Your task to perform on an android device: change the upload size in google photos Image 0: 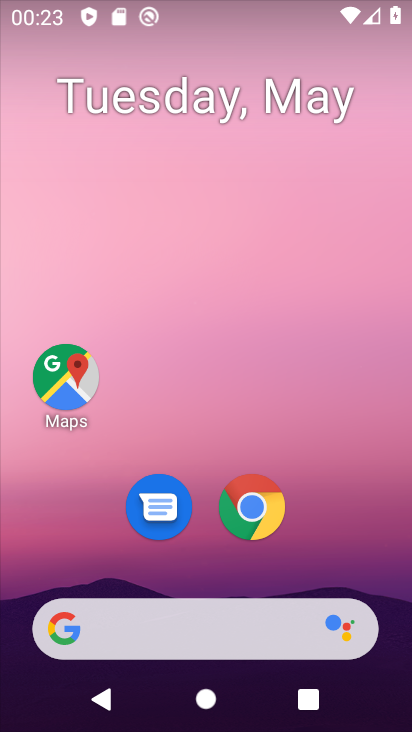
Step 0: drag from (147, 527) to (181, 292)
Your task to perform on an android device: change the upload size in google photos Image 1: 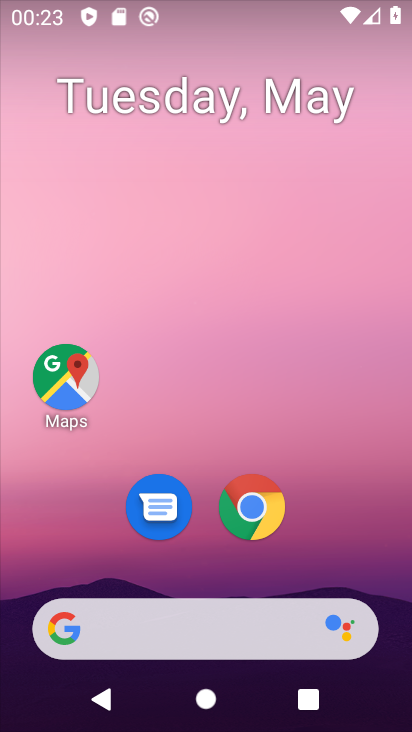
Step 1: drag from (195, 516) to (198, 257)
Your task to perform on an android device: change the upload size in google photos Image 2: 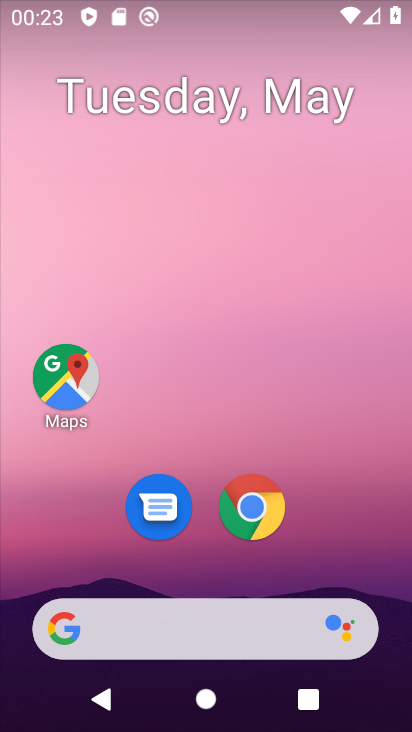
Step 2: drag from (203, 471) to (203, 192)
Your task to perform on an android device: change the upload size in google photos Image 3: 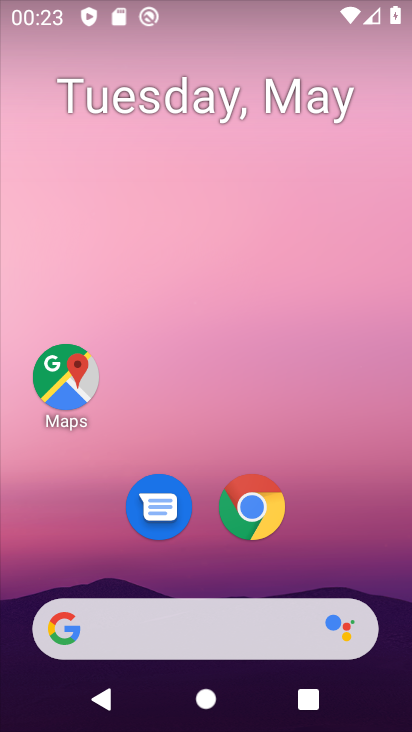
Step 3: drag from (232, 603) to (214, 88)
Your task to perform on an android device: change the upload size in google photos Image 4: 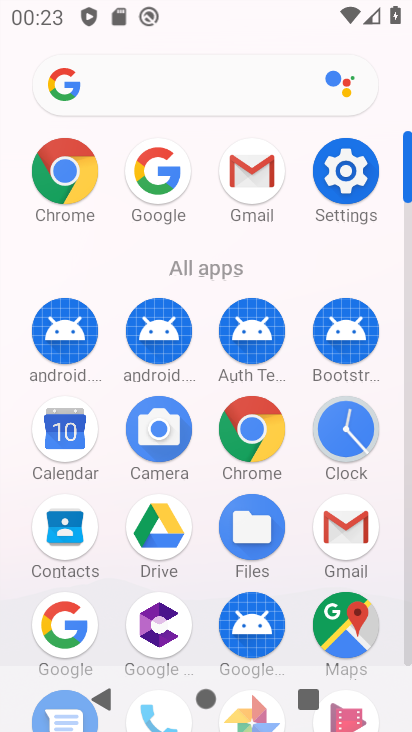
Step 4: drag from (275, 668) to (275, 281)
Your task to perform on an android device: change the upload size in google photos Image 5: 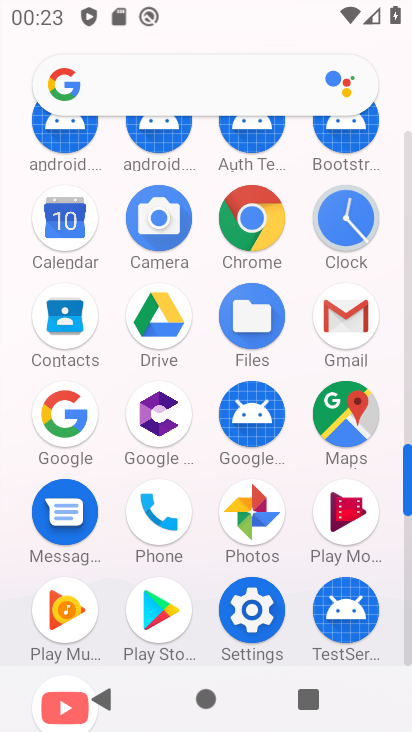
Step 5: click (261, 502)
Your task to perform on an android device: change the upload size in google photos Image 6: 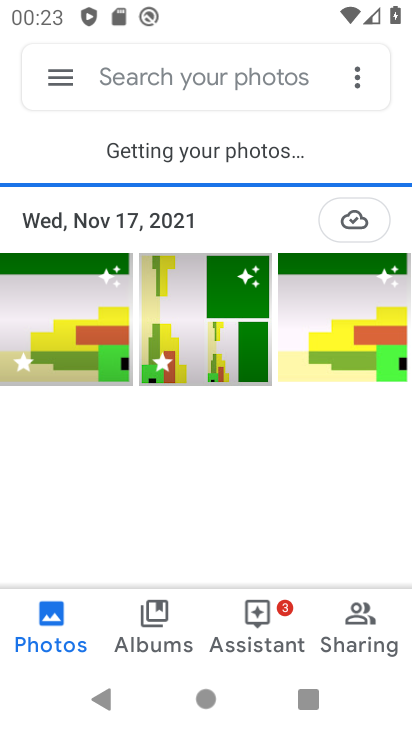
Step 6: click (52, 79)
Your task to perform on an android device: change the upload size in google photos Image 7: 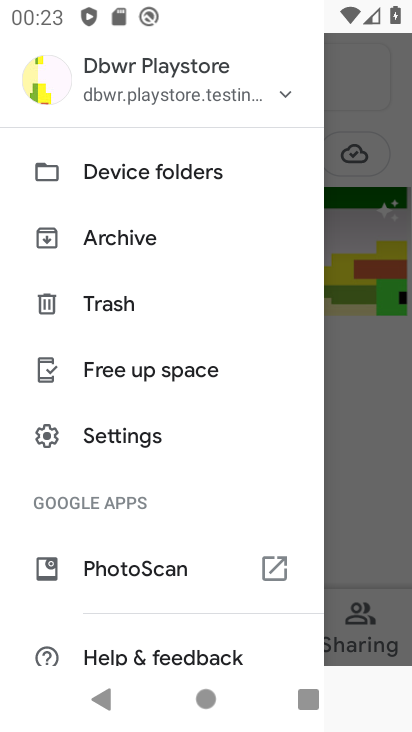
Step 7: click (133, 435)
Your task to perform on an android device: change the upload size in google photos Image 8: 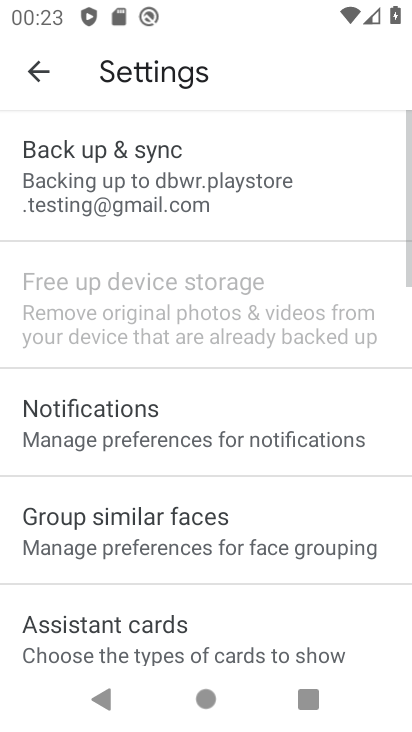
Step 8: click (121, 165)
Your task to perform on an android device: change the upload size in google photos Image 9: 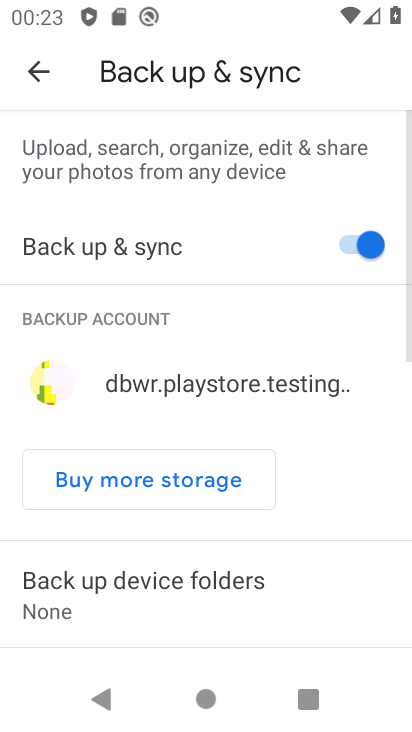
Step 9: drag from (154, 603) to (115, 343)
Your task to perform on an android device: change the upload size in google photos Image 10: 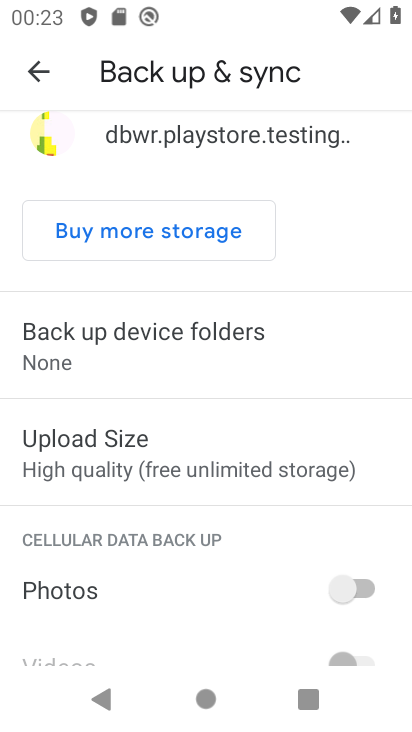
Step 10: click (88, 458)
Your task to perform on an android device: change the upload size in google photos Image 11: 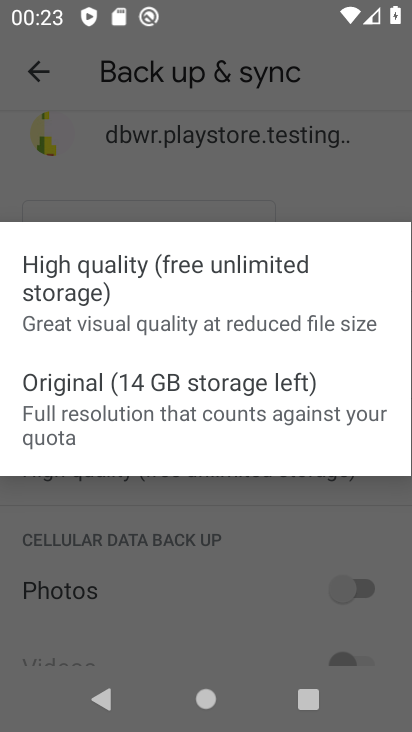
Step 11: click (52, 400)
Your task to perform on an android device: change the upload size in google photos Image 12: 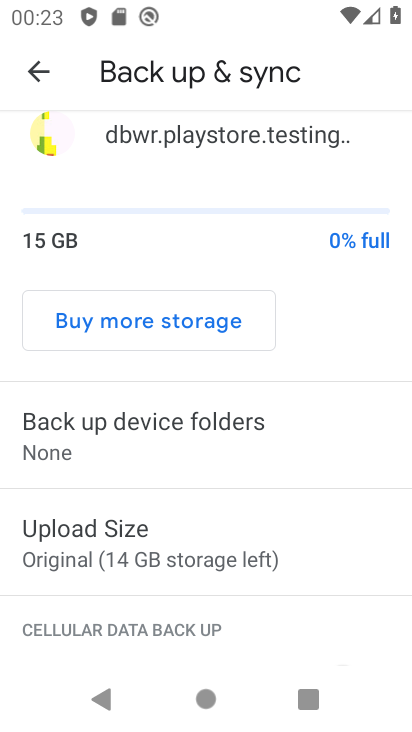
Step 12: task complete